Your task to perform on an android device: Open Maps and search for coffee Image 0: 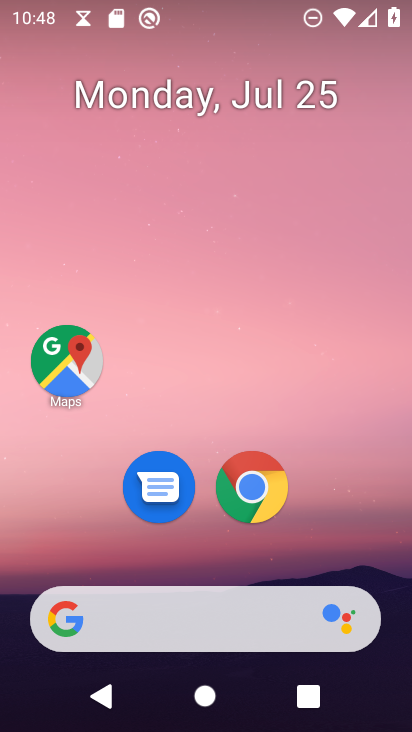
Step 0: click (67, 361)
Your task to perform on an android device: Open Maps and search for coffee Image 1: 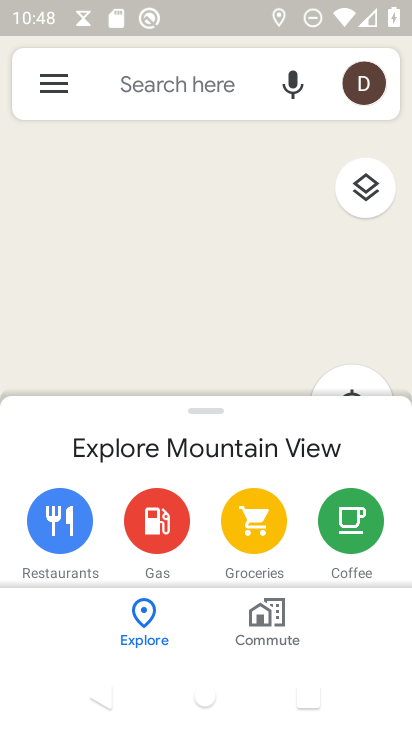
Step 1: click (162, 98)
Your task to perform on an android device: Open Maps and search for coffee Image 2: 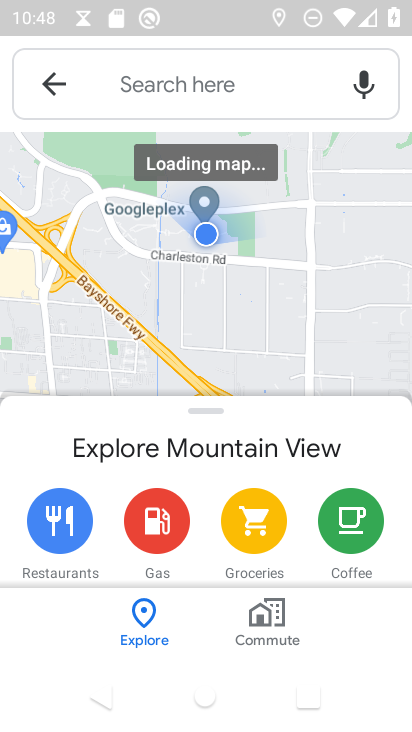
Step 2: click (149, 77)
Your task to perform on an android device: Open Maps and search for coffee Image 3: 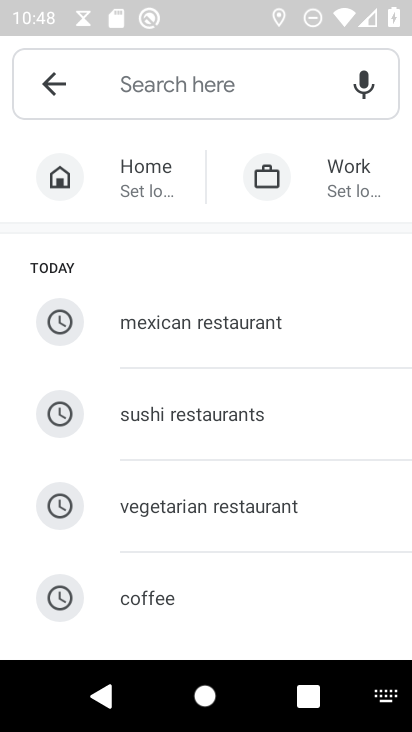
Step 3: click (182, 590)
Your task to perform on an android device: Open Maps and search for coffee Image 4: 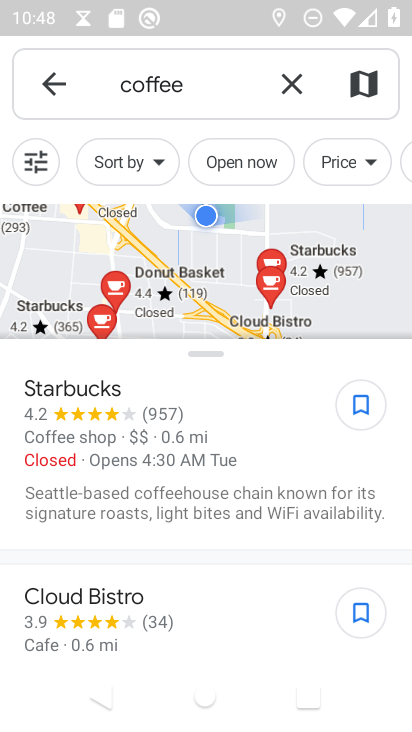
Step 4: task complete